Your task to perform on an android device: toggle priority inbox in the gmail app Image 0: 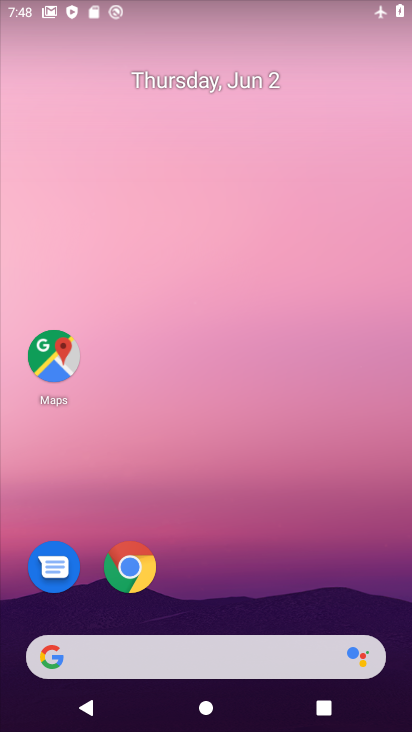
Step 0: drag from (221, 579) to (137, 119)
Your task to perform on an android device: toggle priority inbox in the gmail app Image 1: 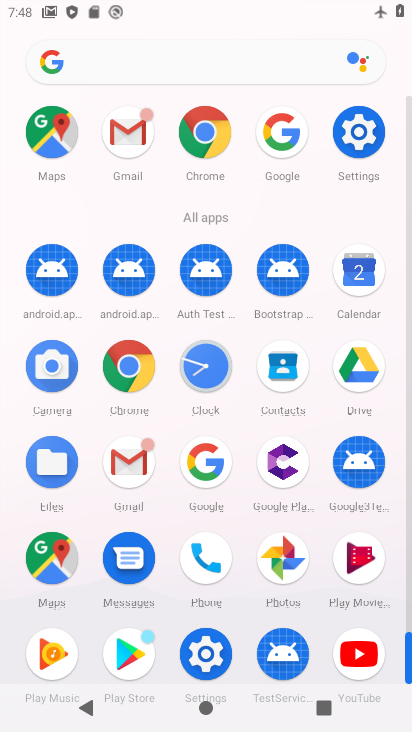
Step 1: click (126, 131)
Your task to perform on an android device: toggle priority inbox in the gmail app Image 2: 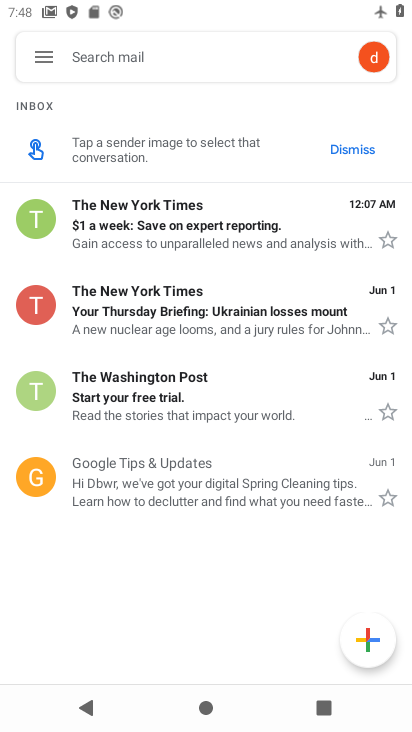
Step 2: click (47, 54)
Your task to perform on an android device: toggle priority inbox in the gmail app Image 3: 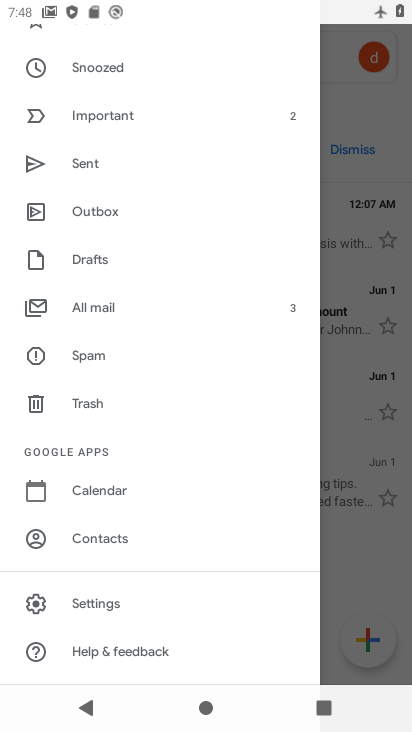
Step 3: click (109, 596)
Your task to perform on an android device: toggle priority inbox in the gmail app Image 4: 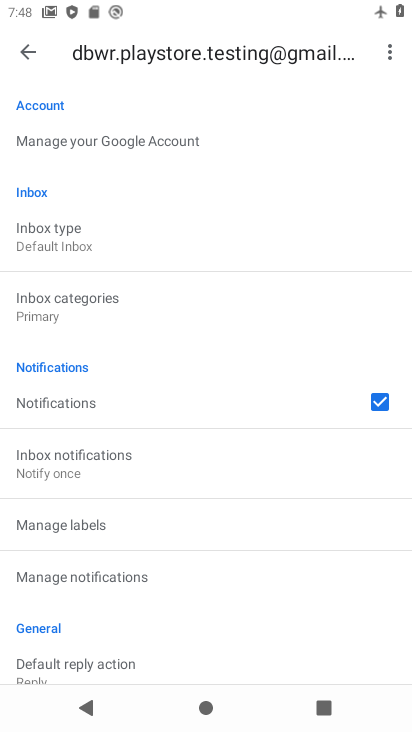
Step 4: click (77, 250)
Your task to perform on an android device: toggle priority inbox in the gmail app Image 5: 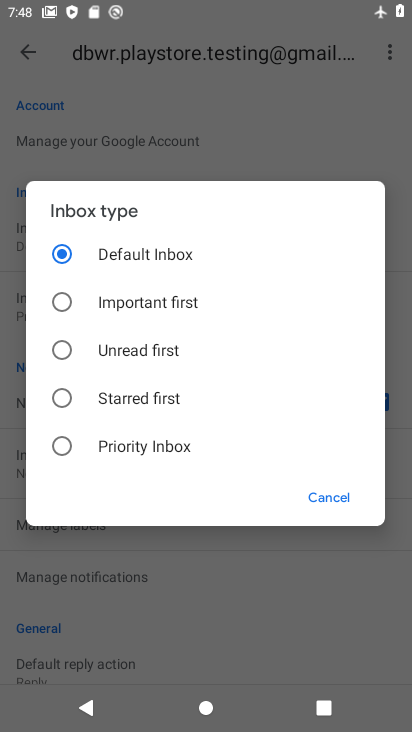
Step 5: click (58, 446)
Your task to perform on an android device: toggle priority inbox in the gmail app Image 6: 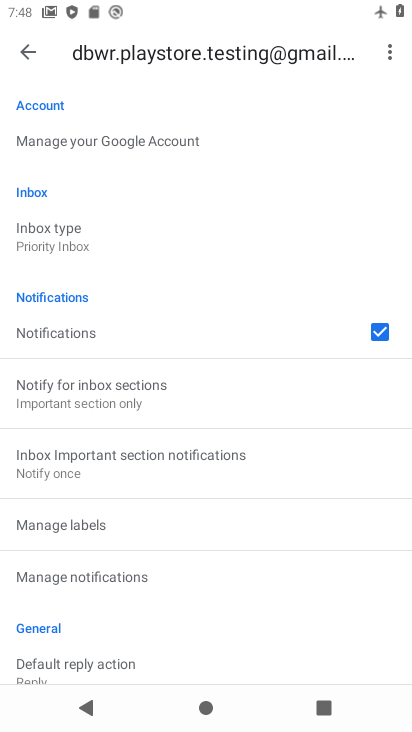
Step 6: task complete